Your task to perform on an android device: Open calendar and show me the third week of next month Image 0: 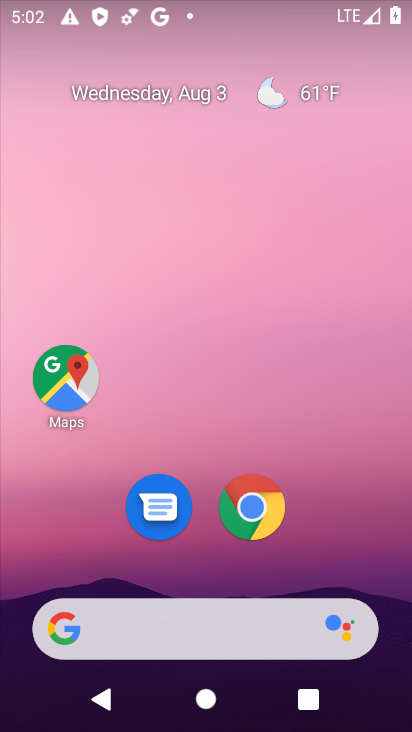
Step 0: drag from (346, 531) to (242, 17)
Your task to perform on an android device: Open calendar and show me the third week of next month Image 1: 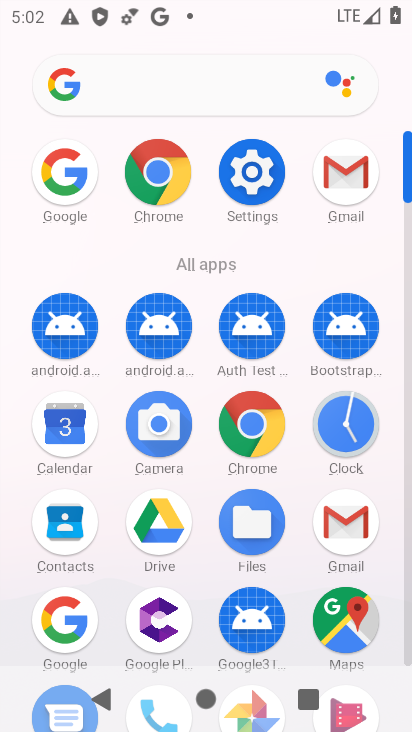
Step 1: drag from (296, 592) to (311, 273)
Your task to perform on an android device: Open calendar and show me the third week of next month Image 2: 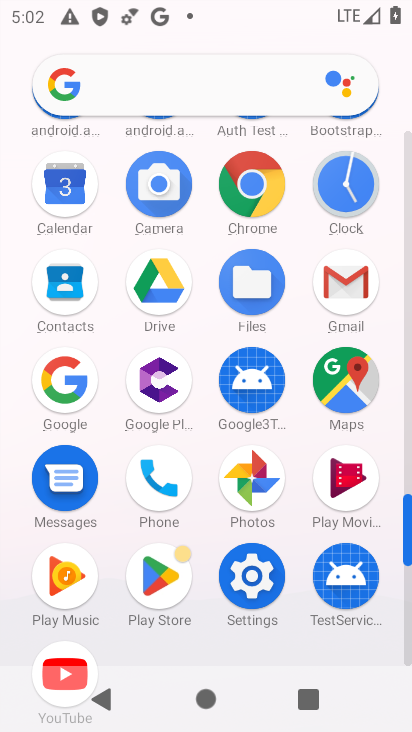
Step 2: click (64, 196)
Your task to perform on an android device: Open calendar and show me the third week of next month Image 3: 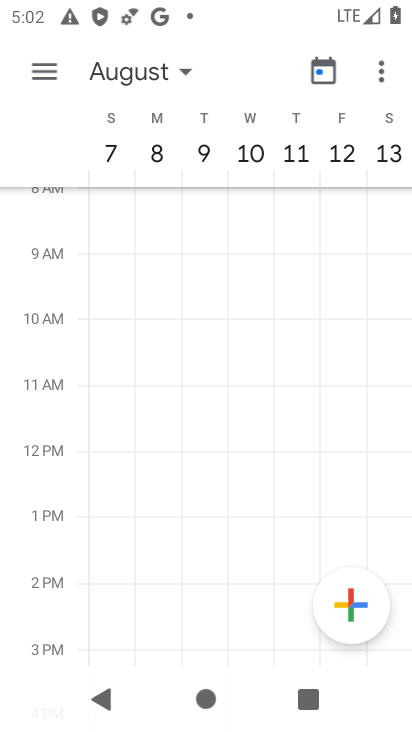
Step 3: click (170, 70)
Your task to perform on an android device: Open calendar and show me the third week of next month Image 4: 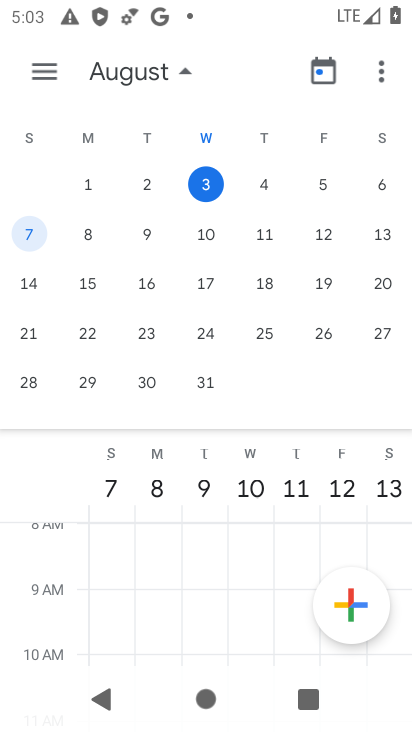
Step 4: drag from (198, 281) to (0, 281)
Your task to perform on an android device: Open calendar and show me the third week of next month Image 5: 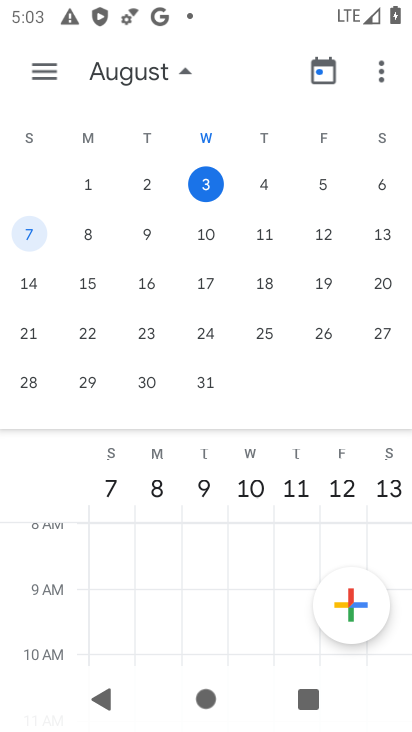
Step 5: drag from (351, 300) to (16, 280)
Your task to perform on an android device: Open calendar and show me the third week of next month Image 6: 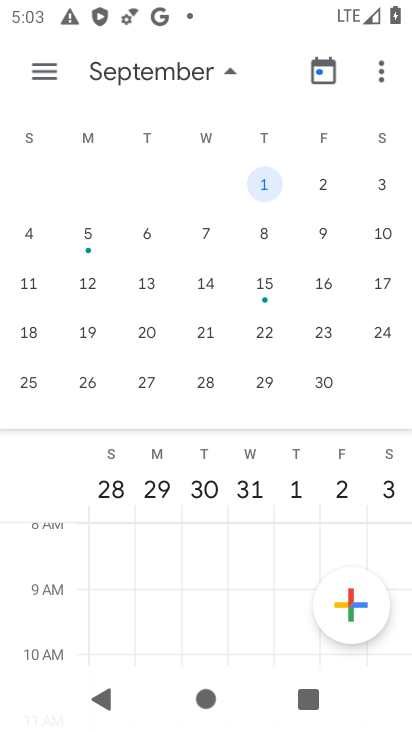
Step 6: click (203, 333)
Your task to perform on an android device: Open calendar and show me the third week of next month Image 7: 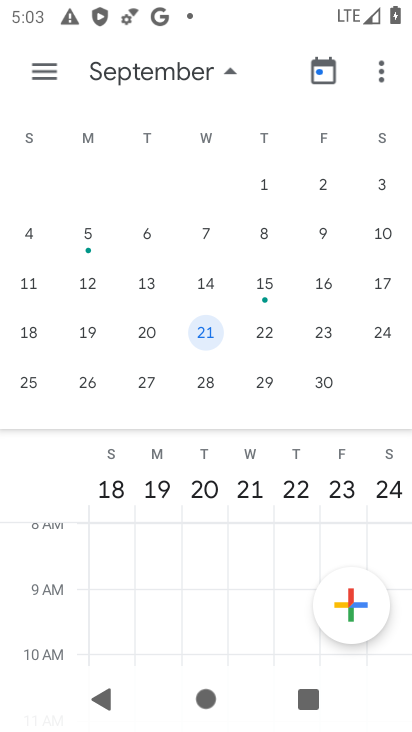
Step 7: click (51, 67)
Your task to perform on an android device: Open calendar and show me the third week of next month Image 8: 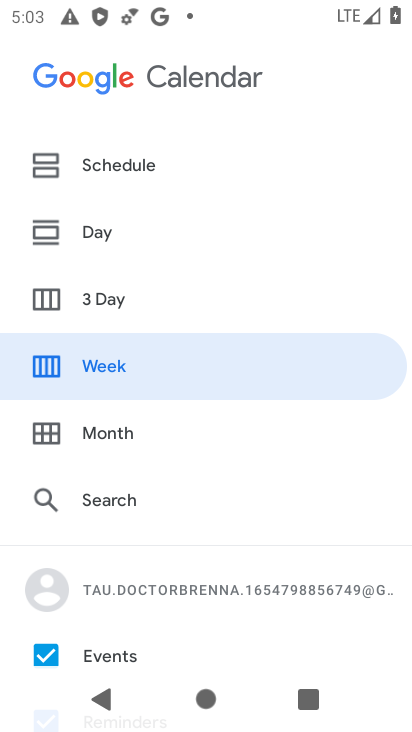
Step 8: click (112, 375)
Your task to perform on an android device: Open calendar and show me the third week of next month Image 9: 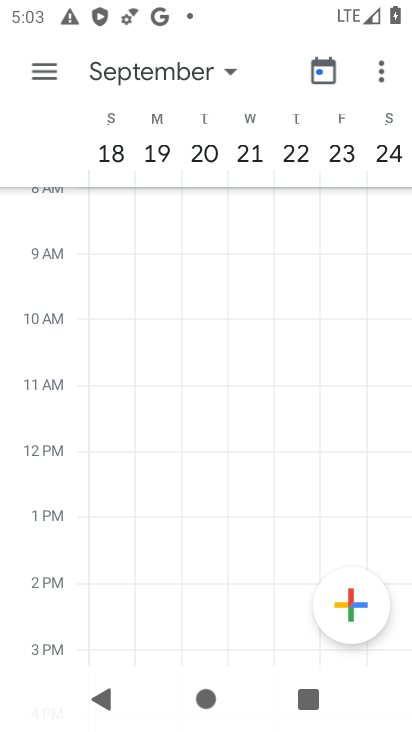
Step 9: task complete